Your task to perform on an android device: Go to Maps Image 0: 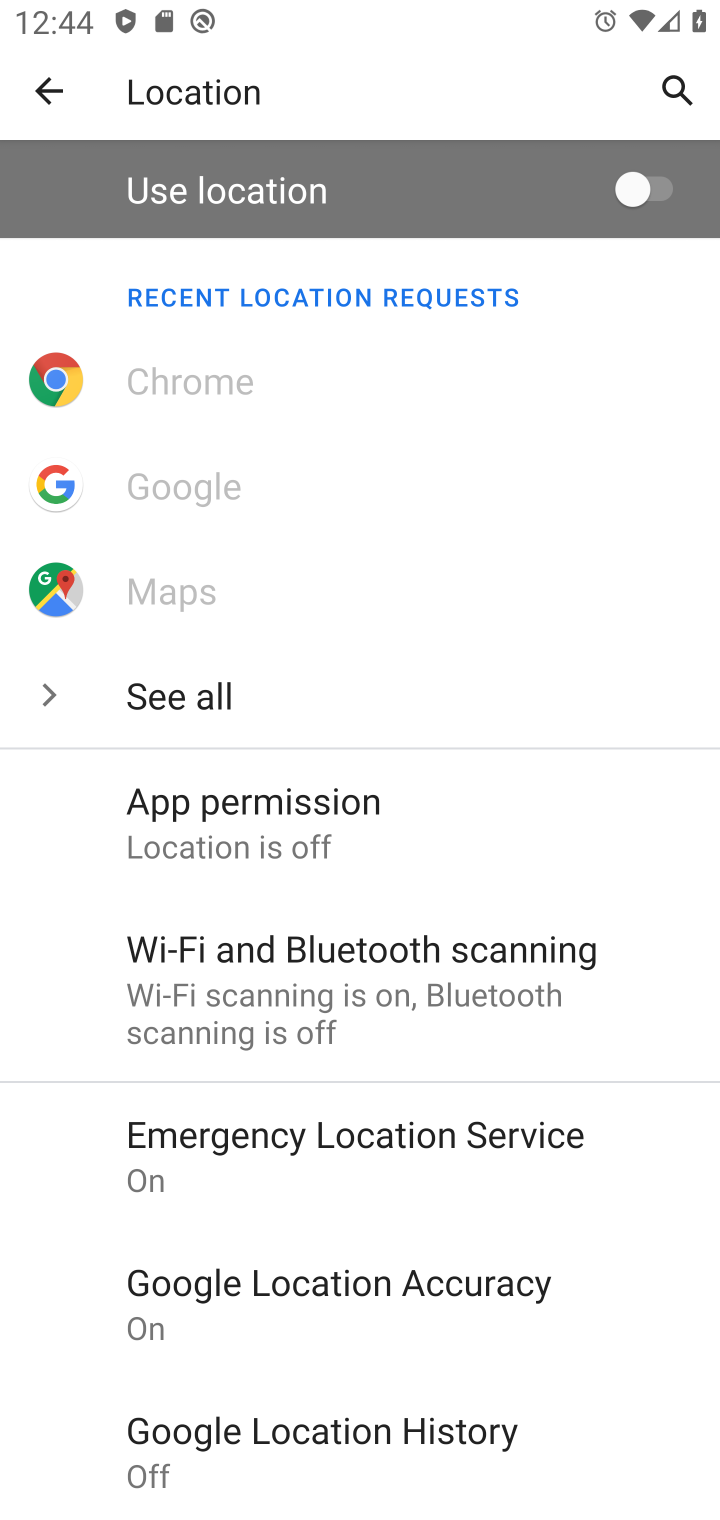
Step 0: press home button
Your task to perform on an android device: Go to Maps Image 1: 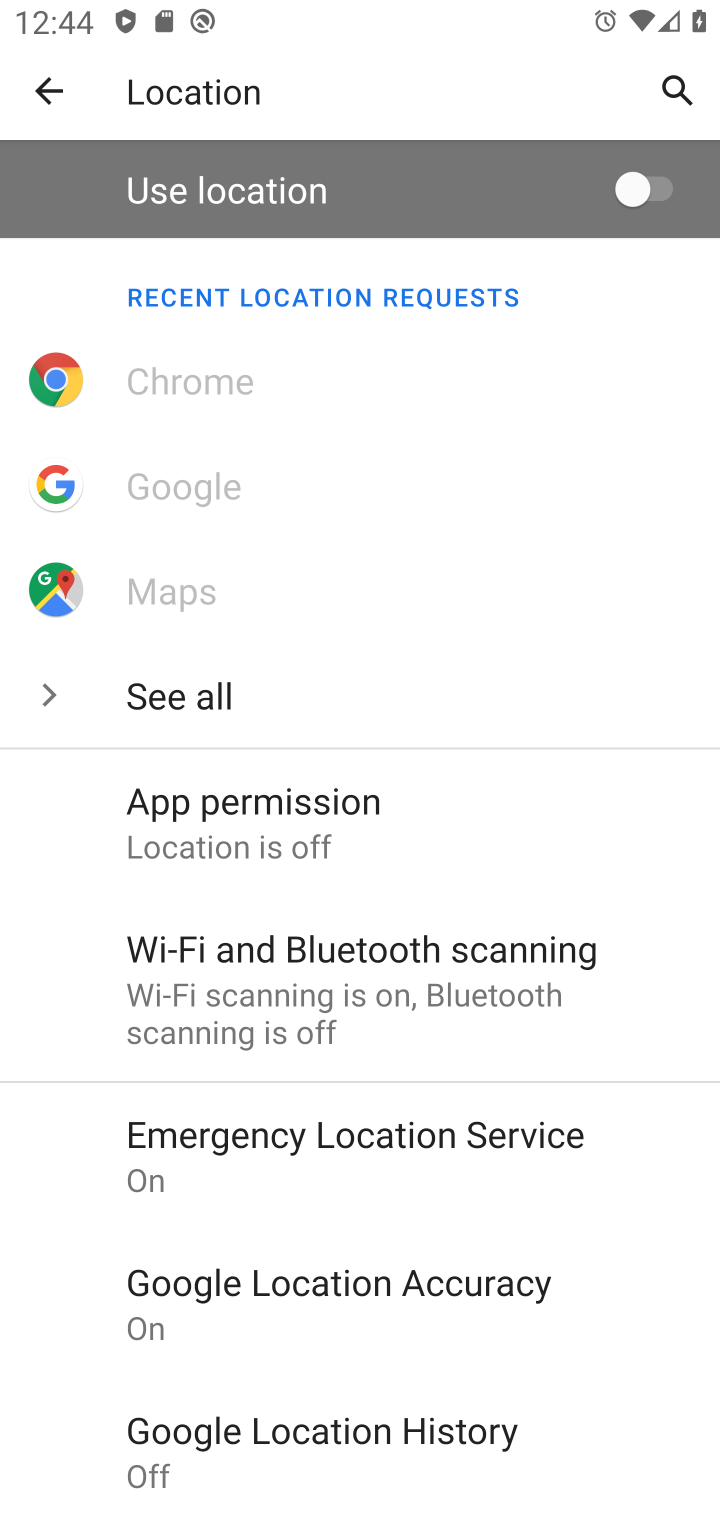
Step 1: drag from (407, 1316) to (705, 147)
Your task to perform on an android device: Go to Maps Image 2: 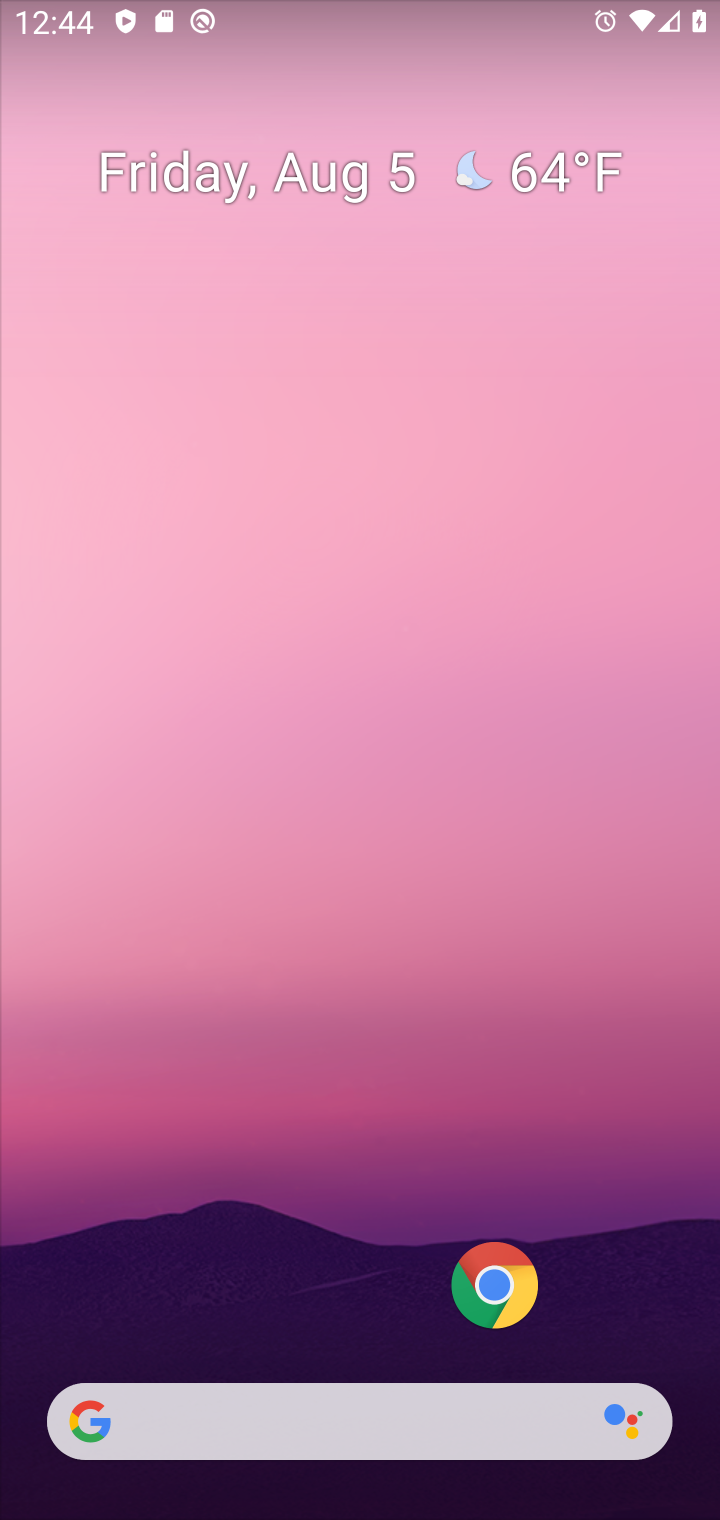
Step 2: drag from (121, 1119) to (381, 75)
Your task to perform on an android device: Go to Maps Image 3: 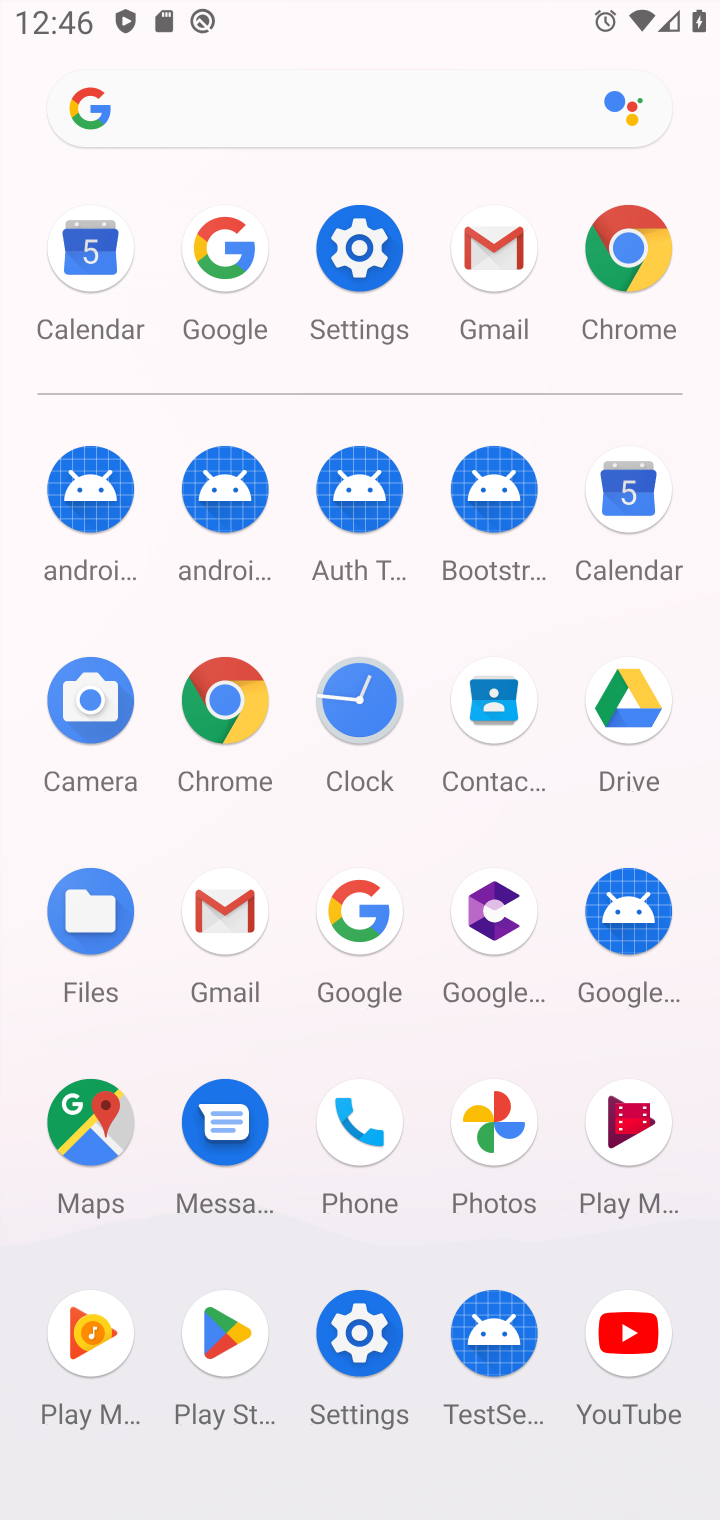
Step 3: click (68, 1173)
Your task to perform on an android device: Go to Maps Image 4: 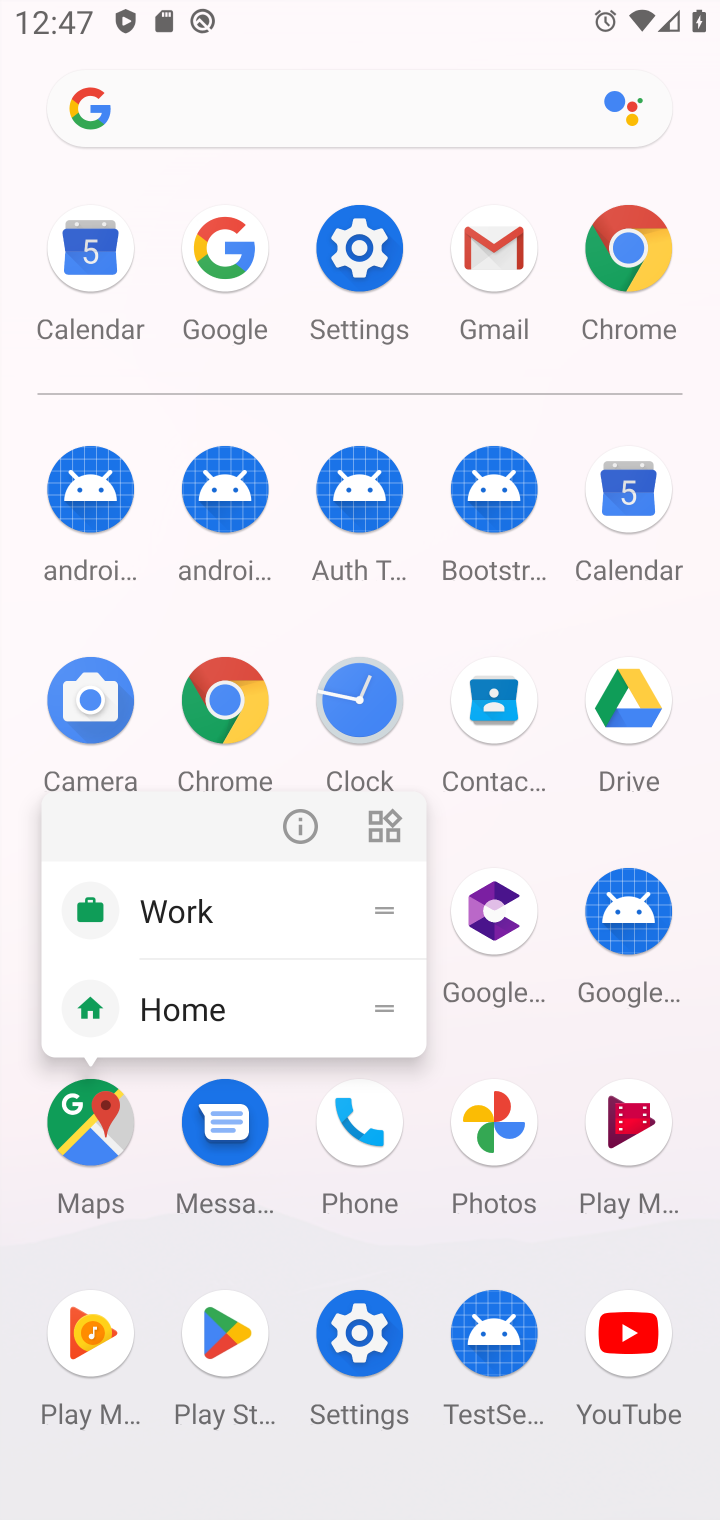
Step 4: task complete